Your task to perform on an android device: turn on translation in the chrome app Image 0: 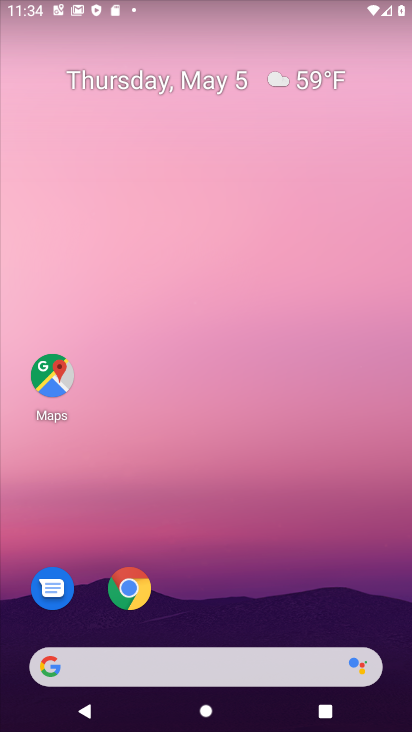
Step 0: drag from (182, 663) to (301, 127)
Your task to perform on an android device: turn on translation in the chrome app Image 1: 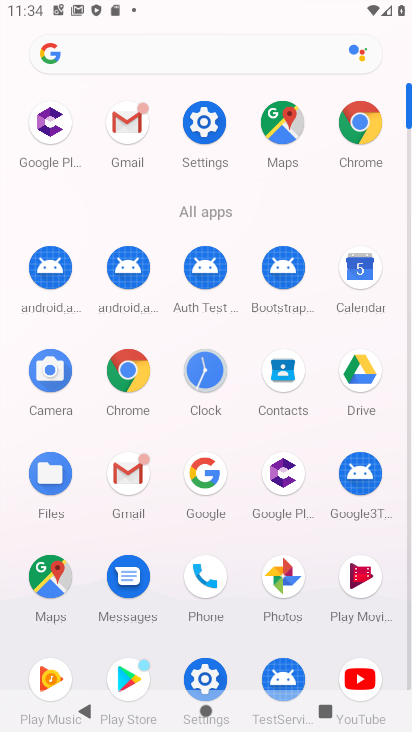
Step 1: click (365, 133)
Your task to perform on an android device: turn on translation in the chrome app Image 2: 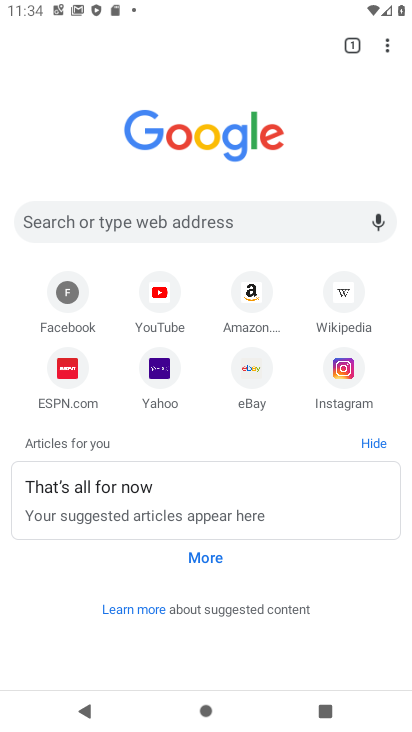
Step 2: drag from (385, 49) to (219, 379)
Your task to perform on an android device: turn on translation in the chrome app Image 3: 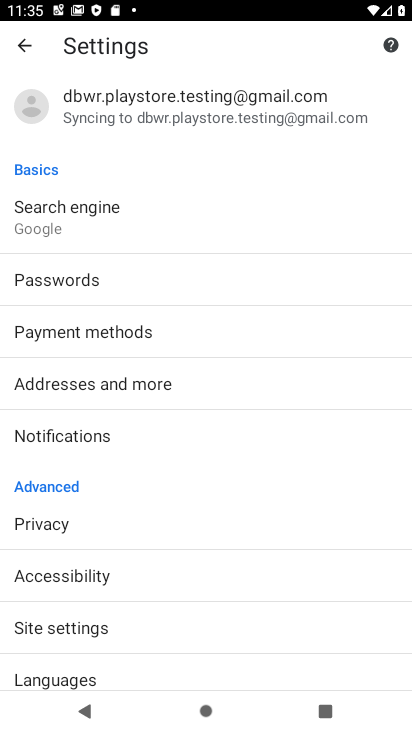
Step 3: click (78, 680)
Your task to perform on an android device: turn on translation in the chrome app Image 4: 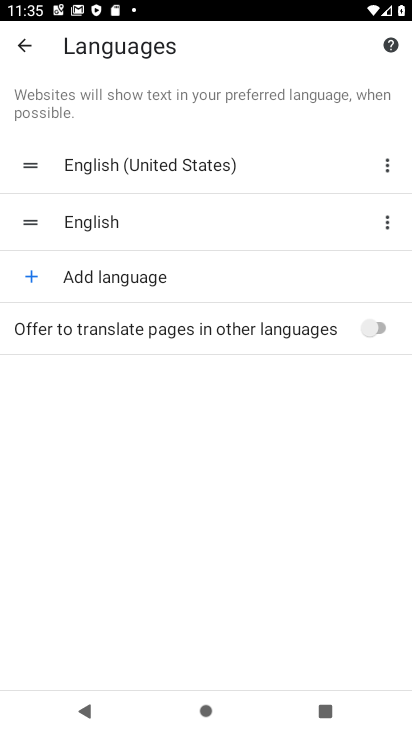
Step 4: click (380, 324)
Your task to perform on an android device: turn on translation in the chrome app Image 5: 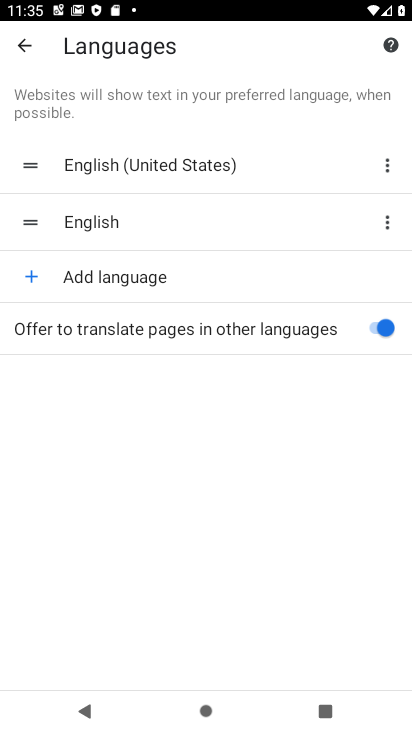
Step 5: task complete